Your task to perform on an android device: make emails show in primary in the gmail app Image 0: 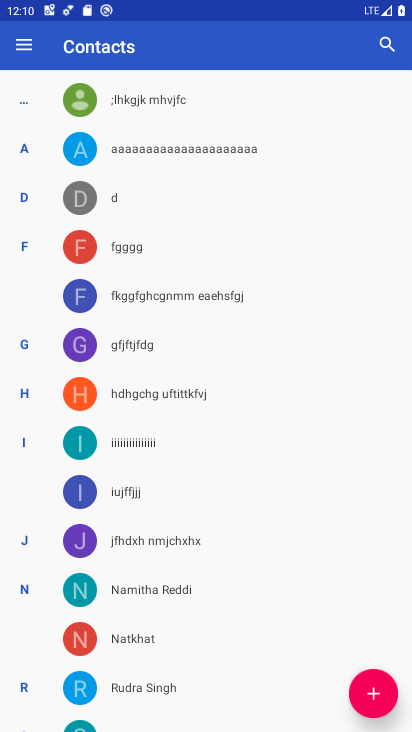
Step 0: press home button
Your task to perform on an android device: make emails show in primary in the gmail app Image 1: 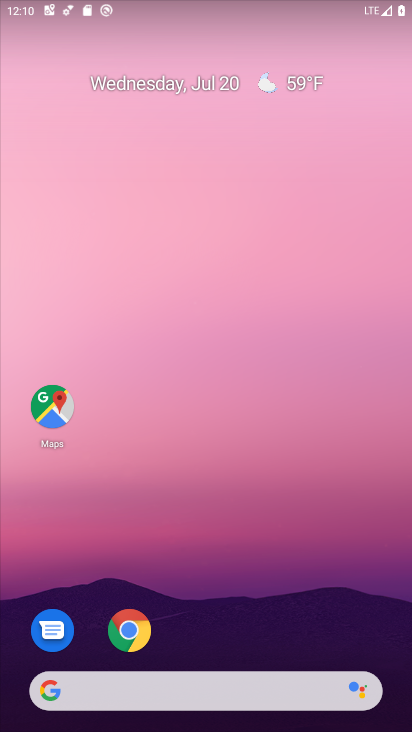
Step 1: drag from (398, 657) to (312, 124)
Your task to perform on an android device: make emails show in primary in the gmail app Image 2: 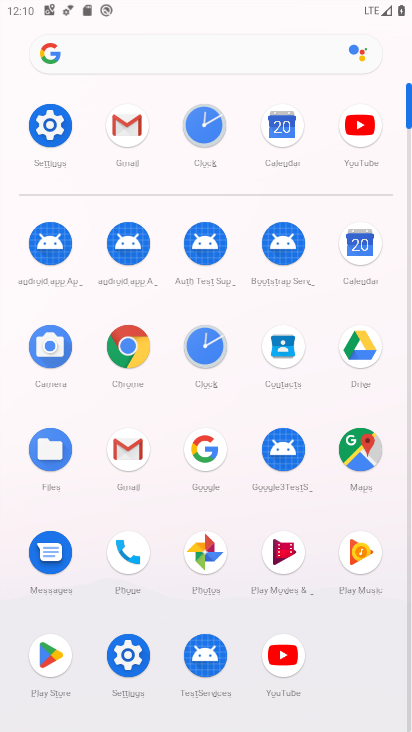
Step 2: click (127, 451)
Your task to perform on an android device: make emails show in primary in the gmail app Image 3: 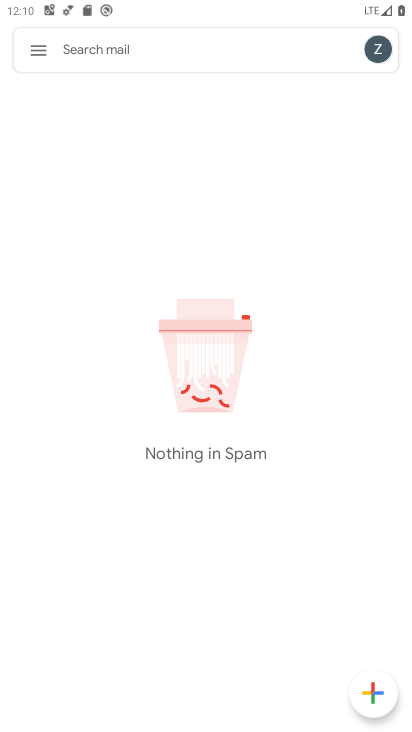
Step 3: click (41, 57)
Your task to perform on an android device: make emails show in primary in the gmail app Image 4: 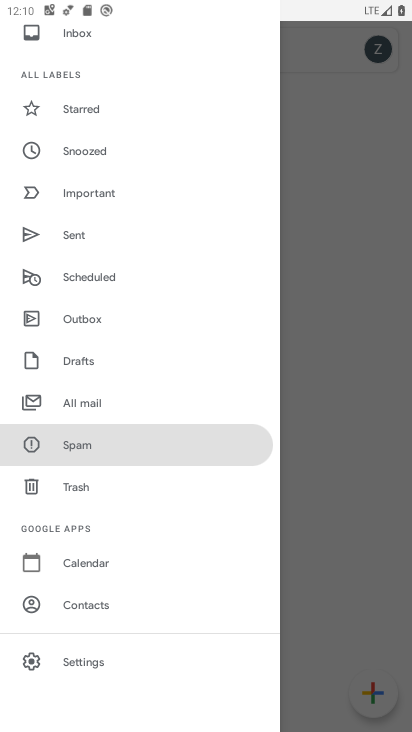
Step 4: click (87, 663)
Your task to perform on an android device: make emails show in primary in the gmail app Image 5: 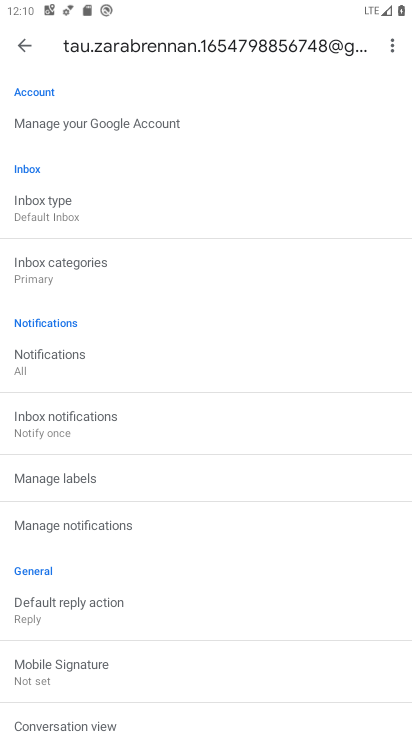
Step 5: click (39, 205)
Your task to perform on an android device: make emails show in primary in the gmail app Image 6: 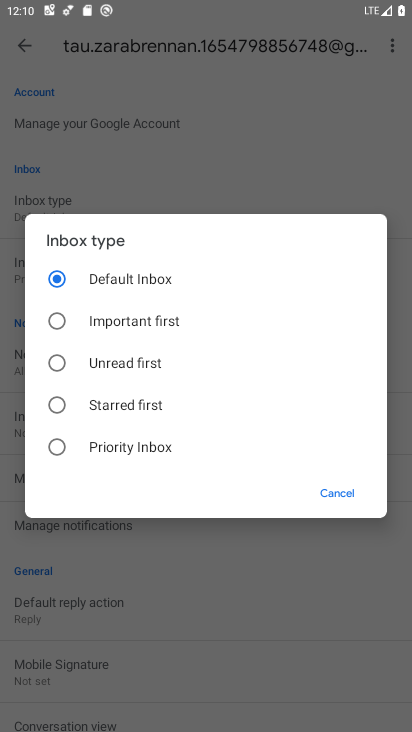
Step 6: click (327, 490)
Your task to perform on an android device: make emails show in primary in the gmail app Image 7: 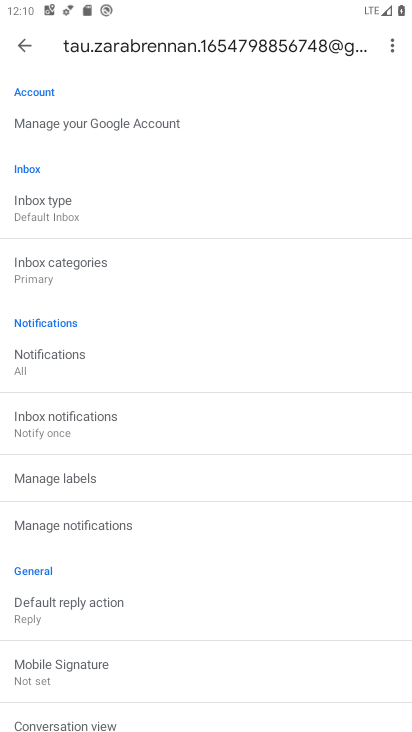
Step 7: click (47, 272)
Your task to perform on an android device: make emails show in primary in the gmail app Image 8: 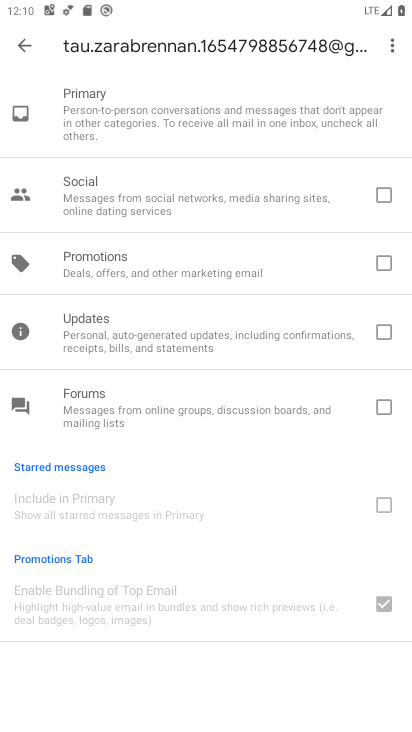
Step 8: task complete